Your task to perform on an android device: Go to calendar. Show me events next week Image 0: 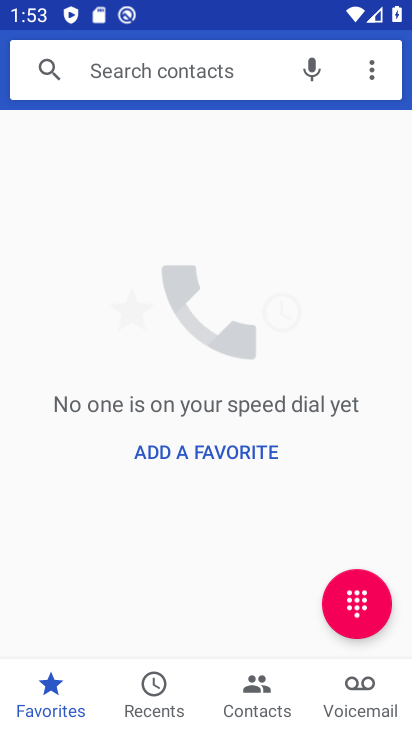
Step 0: press home button
Your task to perform on an android device: Go to calendar. Show me events next week Image 1: 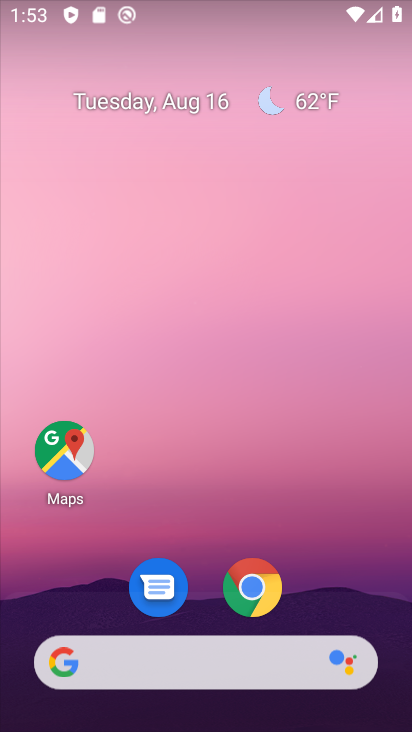
Step 1: press home button
Your task to perform on an android device: Go to calendar. Show me events next week Image 2: 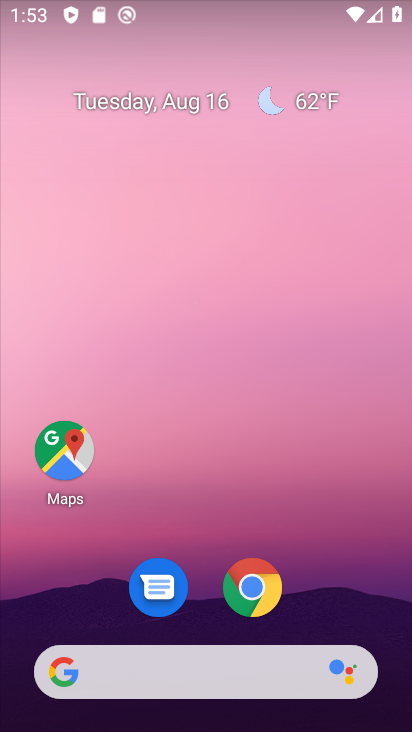
Step 2: drag from (189, 593) to (240, 391)
Your task to perform on an android device: Go to calendar. Show me events next week Image 3: 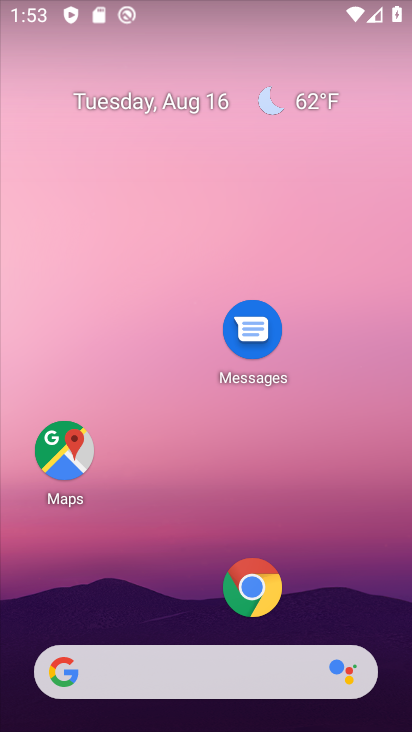
Step 3: drag from (227, 459) to (390, 135)
Your task to perform on an android device: Go to calendar. Show me events next week Image 4: 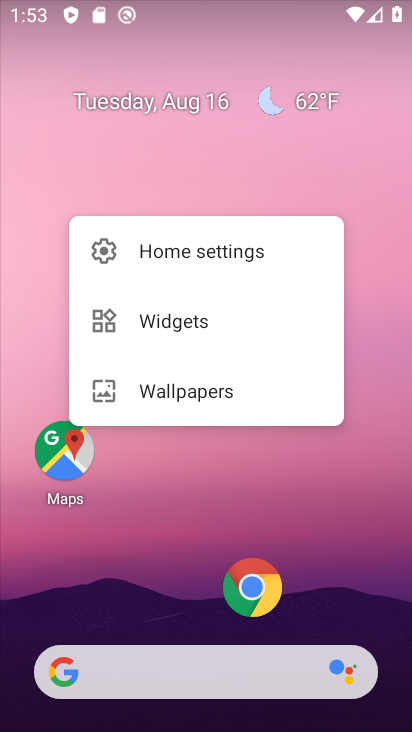
Step 4: click (119, 545)
Your task to perform on an android device: Go to calendar. Show me events next week Image 5: 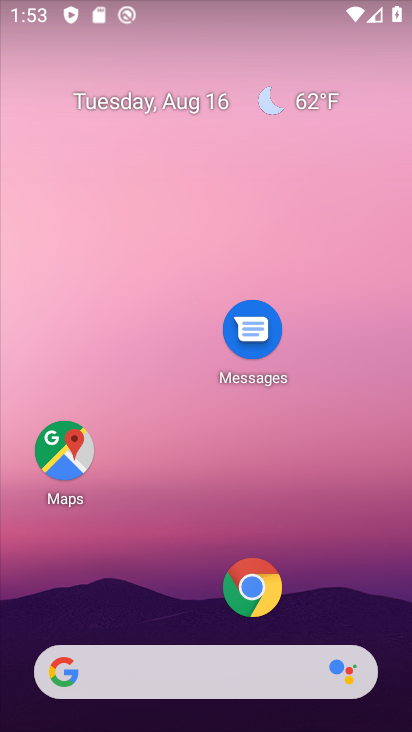
Step 5: click (119, 545)
Your task to perform on an android device: Go to calendar. Show me events next week Image 6: 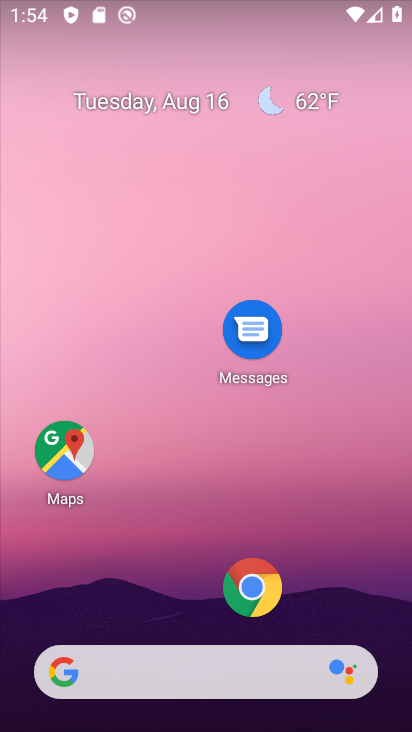
Step 6: task complete